Your task to perform on an android device: Open the calendar app, open the side menu, and click the "Day" option Image 0: 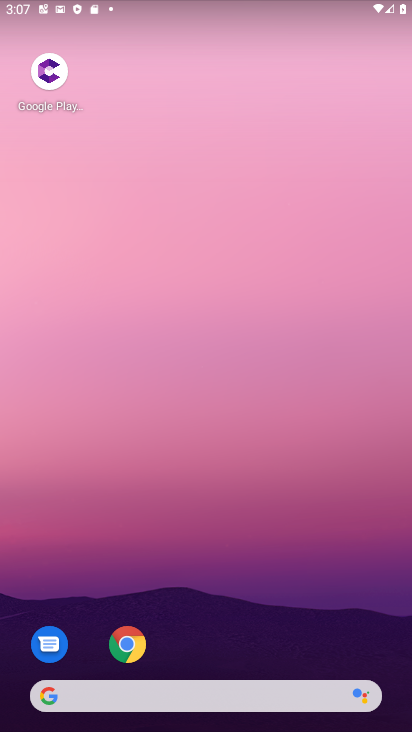
Step 0: drag from (127, 428) to (275, 94)
Your task to perform on an android device: Open the calendar app, open the side menu, and click the "Day" option Image 1: 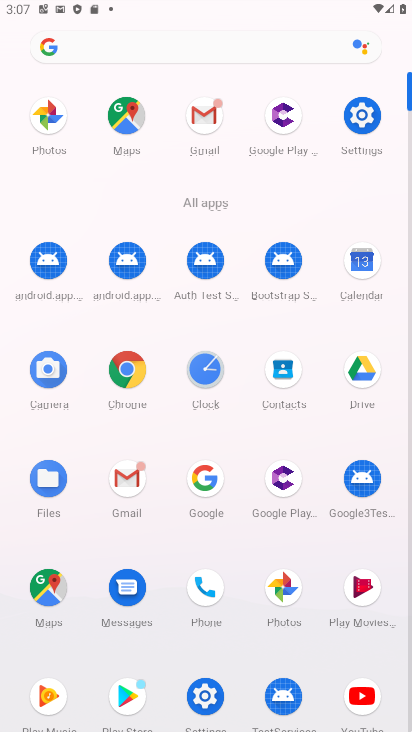
Step 1: click (372, 255)
Your task to perform on an android device: Open the calendar app, open the side menu, and click the "Day" option Image 2: 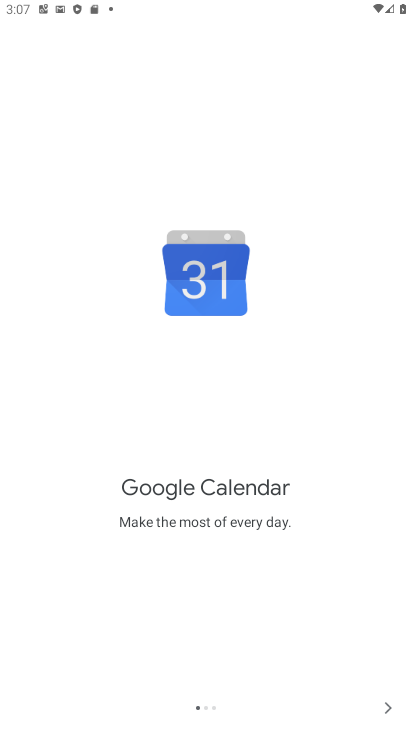
Step 2: click (378, 698)
Your task to perform on an android device: Open the calendar app, open the side menu, and click the "Day" option Image 3: 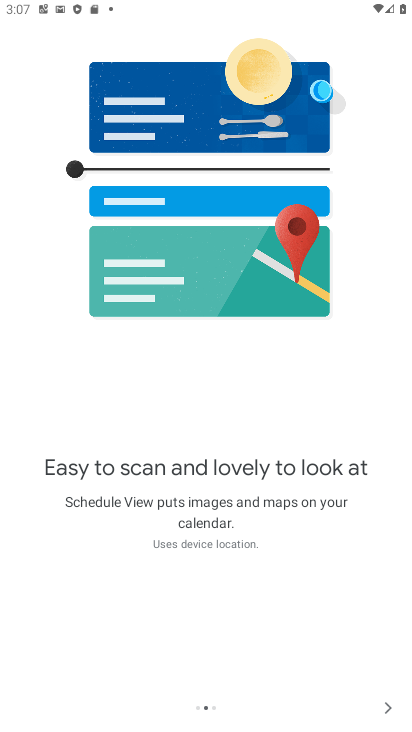
Step 3: click (391, 712)
Your task to perform on an android device: Open the calendar app, open the side menu, and click the "Day" option Image 4: 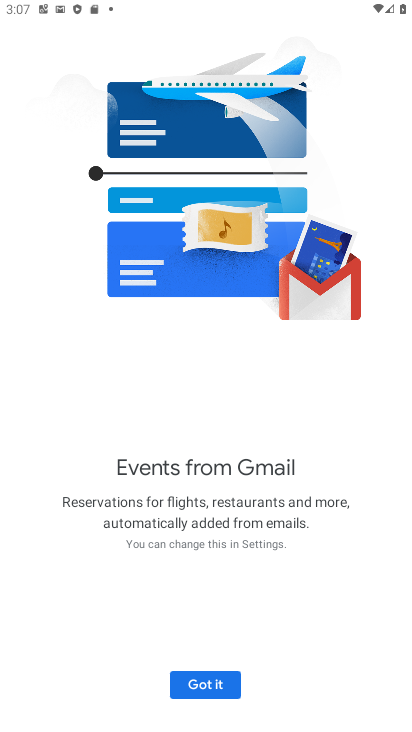
Step 4: click (180, 679)
Your task to perform on an android device: Open the calendar app, open the side menu, and click the "Day" option Image 5: 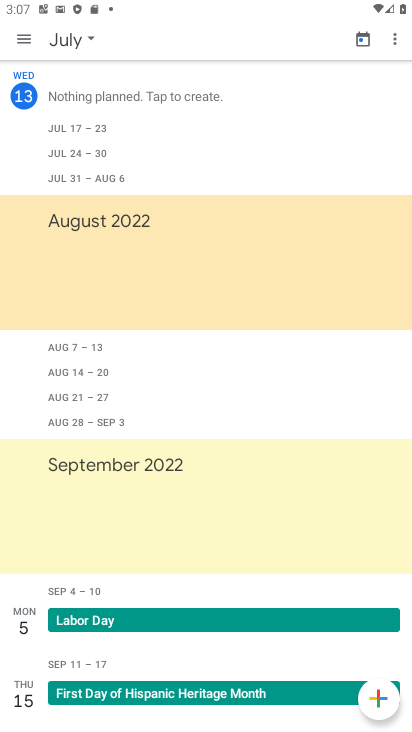
Step 5: click (19, 32)
Your task to perform on an android device: Open the calendar app, open the side menu, and click the "Day" option Image 6: 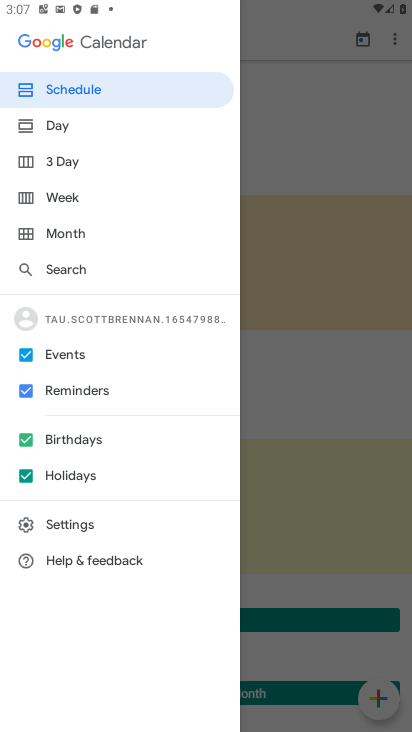
Step 6: click (63, 122)
Your task to perform on an android device: Open the calendar app, open the side menu, and click the "Day" option Image 7: 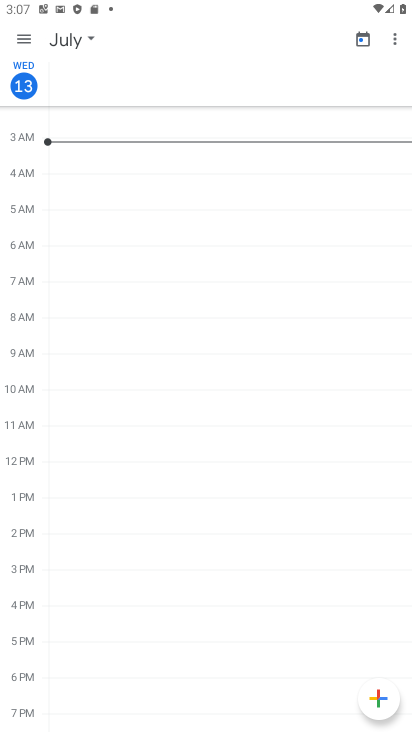
Step 7: task complete